Your task to perform on an android device: turn on location history Image 0: 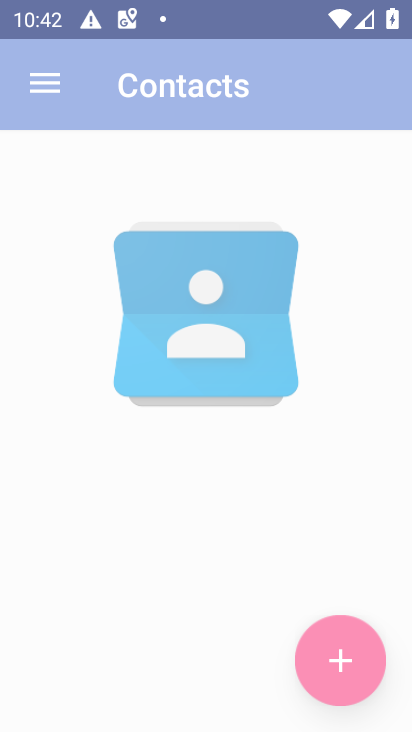
Step 0: press home button
Your task to perform on an android device: turn on location history Image 1: 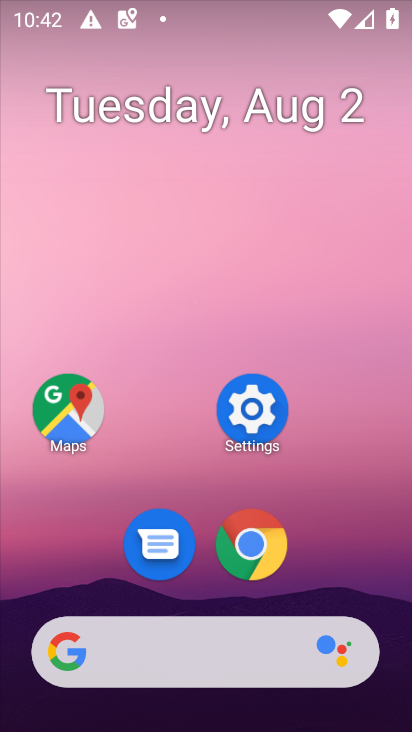
Step 1: click (248, 416)
Your task to perform on an android device: turn on location history Image 2: 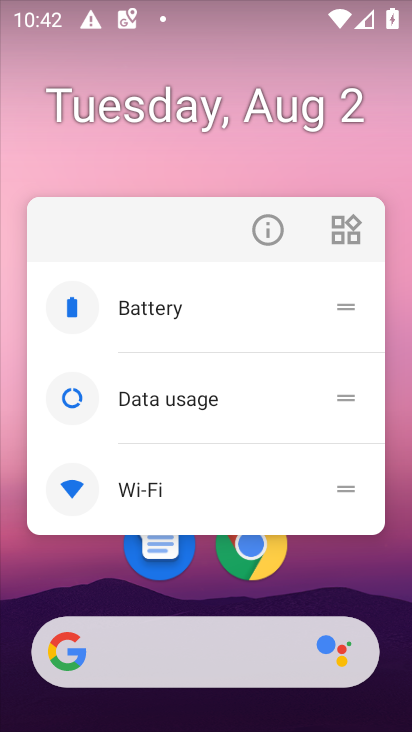
Step 2: click (386, 568)
Your task to perform on an android device: turn on location history Image 3: 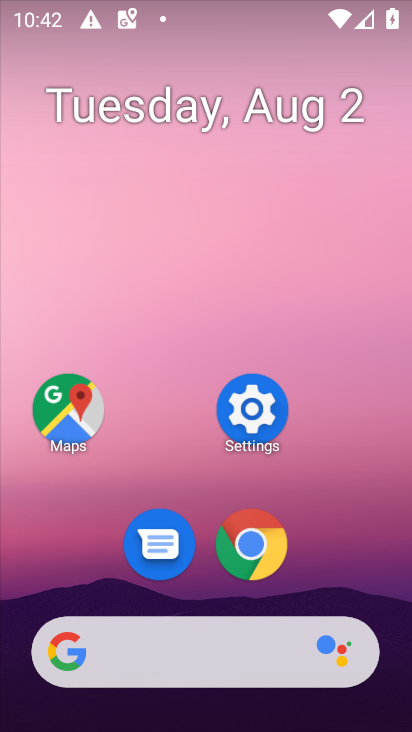
Step 3: click (258, 407)
Your task to perform on an android device: turn on location history Image 4: 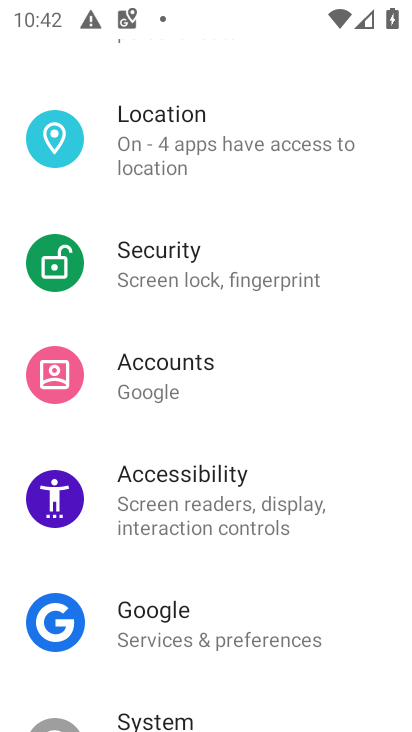
Step 4: drag from (270, 664) to (323, 136)
Your task to perform on an android device: turn on location history Image 5: 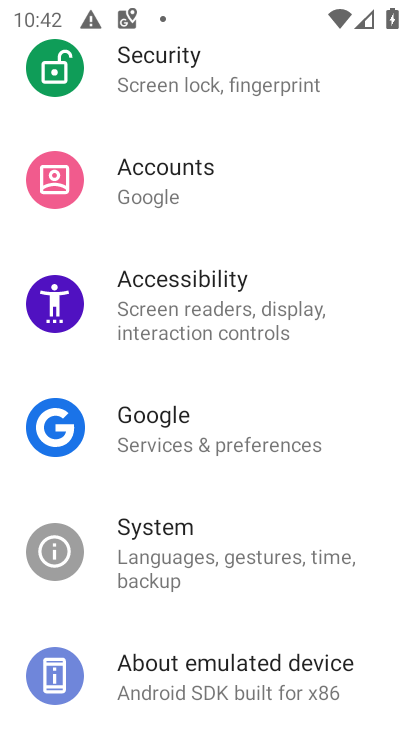
Step 5: drag from (268, 196) to (265, 656)
Your task to perform on an android device: turn on location history Image 6: 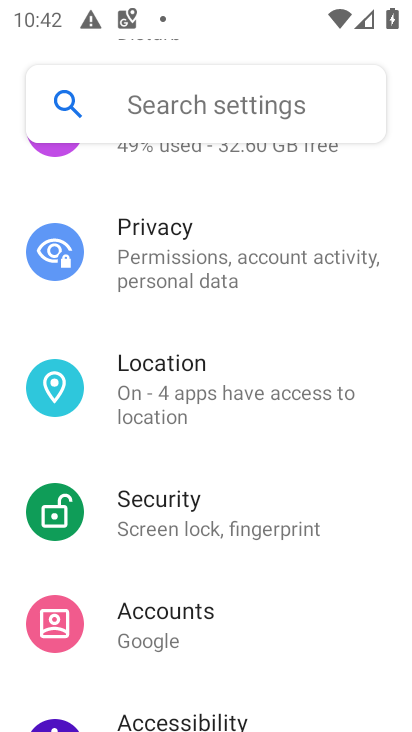
Step 6: click (181, 384)
Your task to perform on an android device: turn on location history Image 7: 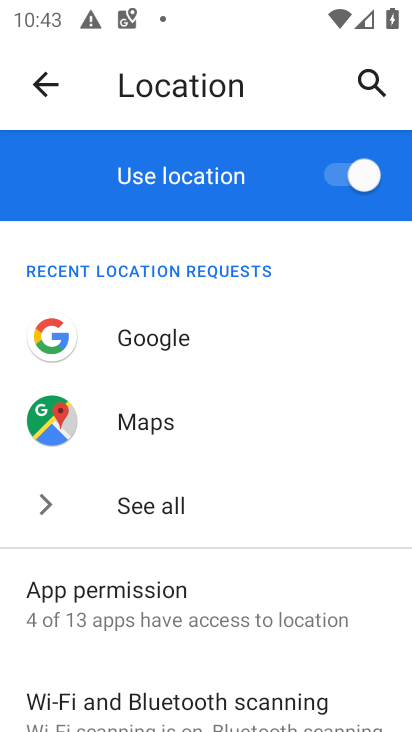
Step 7: drag from (284, 635) to (325, 452)
Your task to perform on an android device: turn on location history Image 8: 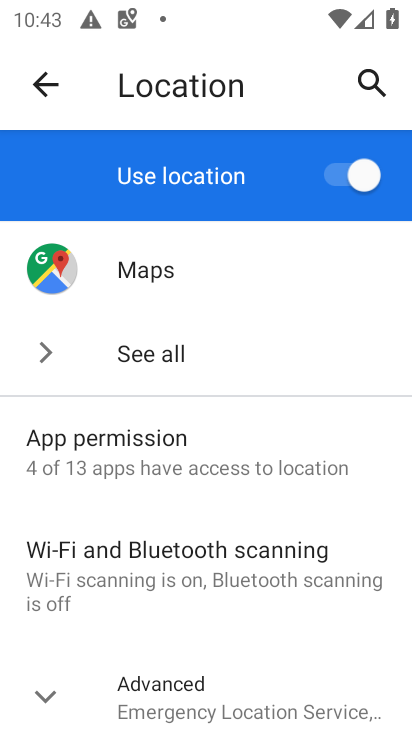
Step 8: drag from (282, 644) to (267, 262)
Your task to perform on an android device: turn on location history Image 9: 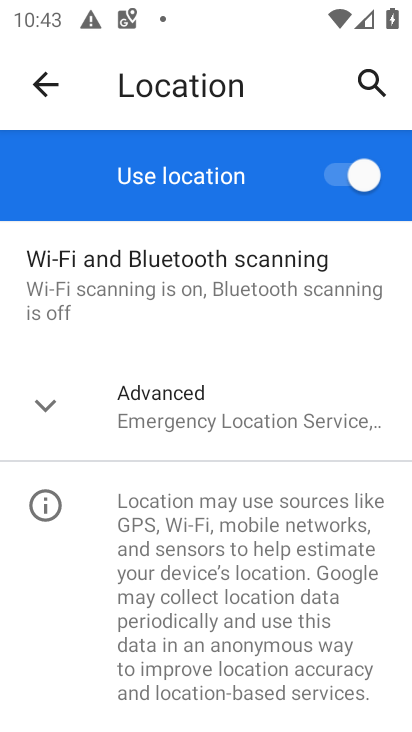
Step 9: click (157, 410)
Your task to perform on an android device: turn on location history Image 10: 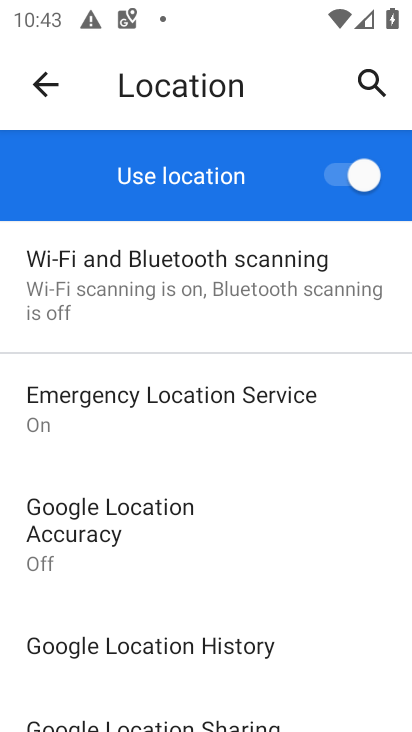
Step 10: click (216, 650)
Your task to perform on an android device: turn on location history Image 11: 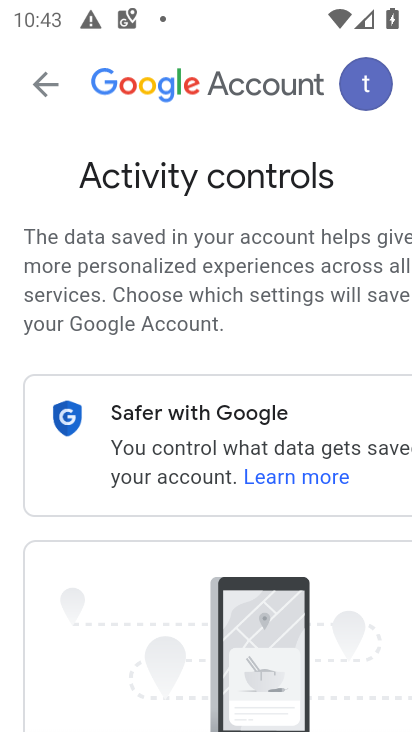
Step 11: task complete